Your task to perform on an android device: Open internet settings Image 0: 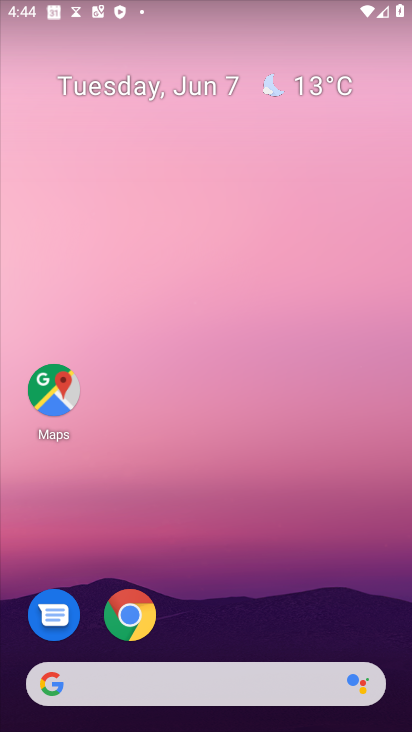
Step 0: drag from (235, 592) to (191, 250)
Your task to perform on an android device: Open internet settings Image 1: 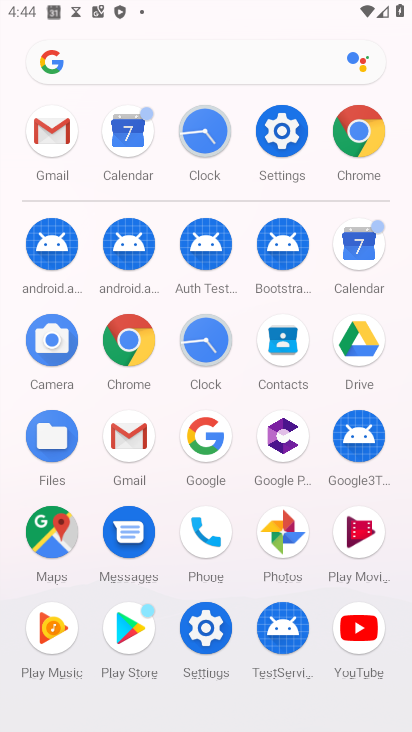
Step 1: click (276, 130)
Your task to perform on an android device: Open internet settings Image 2: 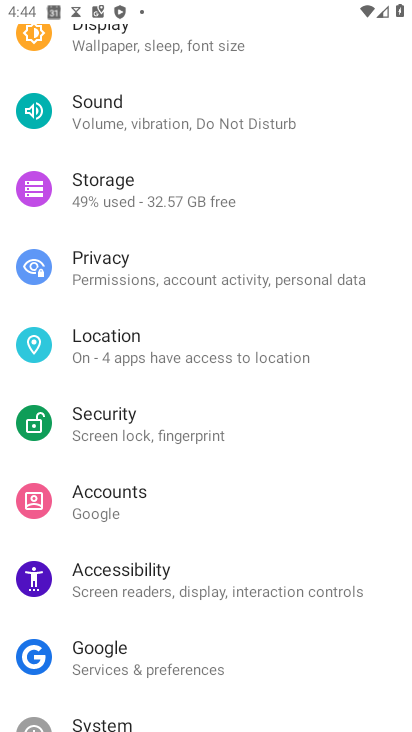
Step 2: drag from (147, 147) to (208, 615)
Your task to perform on an android device: Open internet settings Image 3: 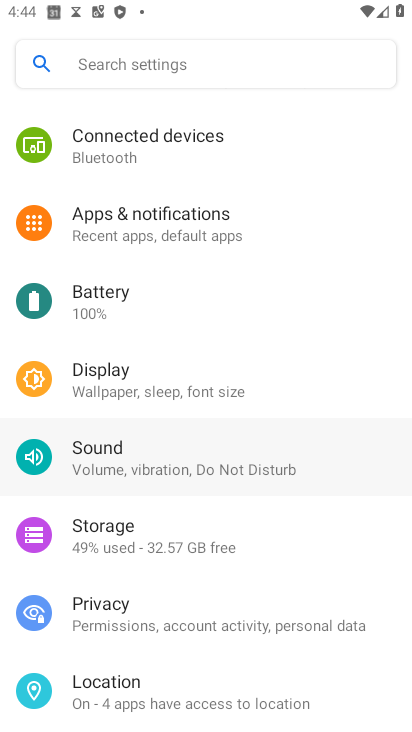
Step 3: drag from (85, 274) to (163, 622)
Your task to perform on an android device: Open internet settings Image 4: 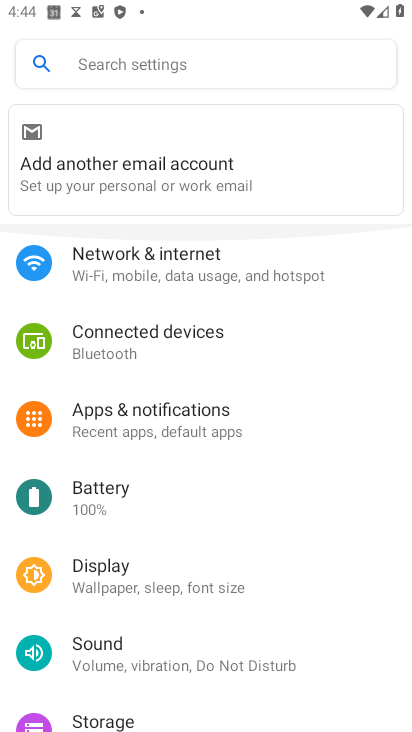
Step 4: click (218, 671)
Your task to perform on an android device: Open internet settings Image 5: 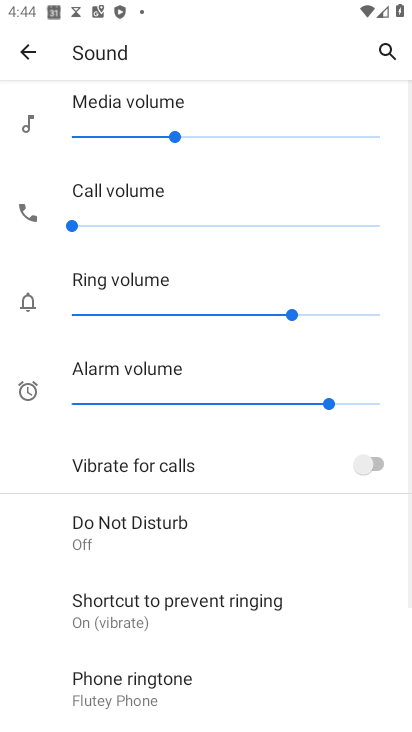
Step 5: click (23, 40)
Your task to perform on an android device: Open internet settings Image 6: 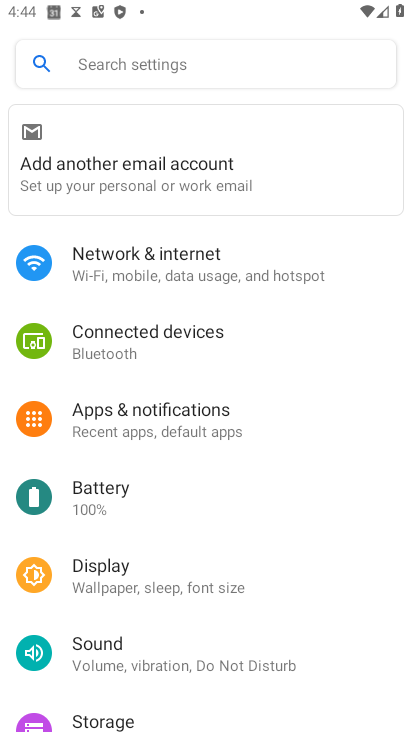
Step 6: drag from (145, 567) to (148, 259)
Your task to perform on an android device: Open internet settings Image 7: 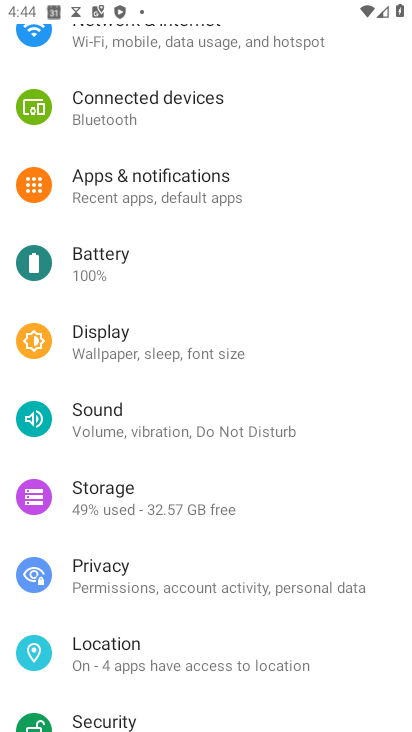
Step 7: drag from (148, 499) to (125, 271)
Your task to perform on an android device: Open internet settings Image 8: 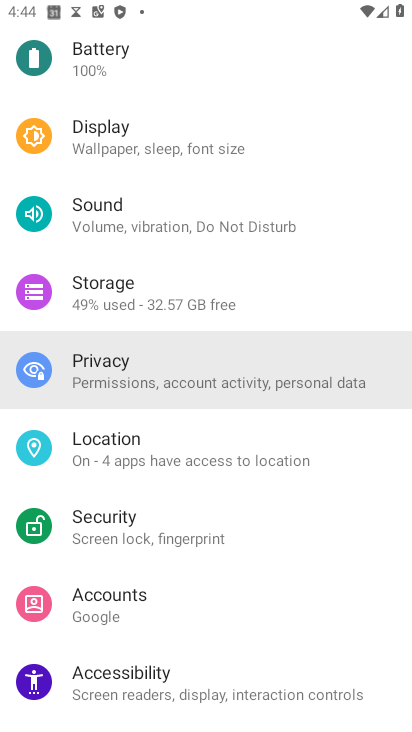
Step 8: drag from (156, 449) to (133, 244)
Your task to perform on an android device: Open internet settings Image 9: 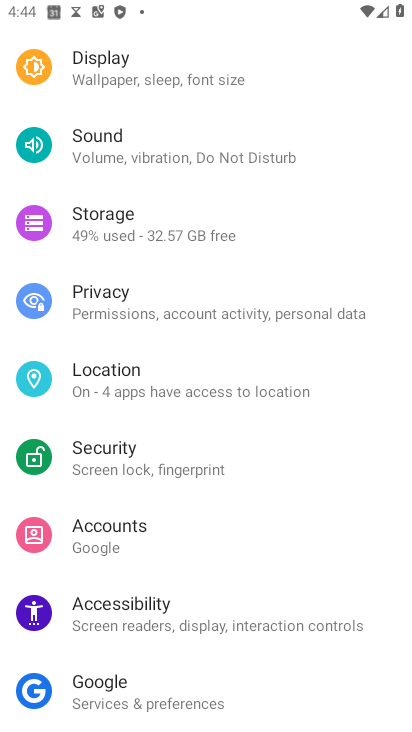
Step 9: drag from (105, 240) to (172, 626)
Your task to perform on an android device: Open internet settings Image 10: 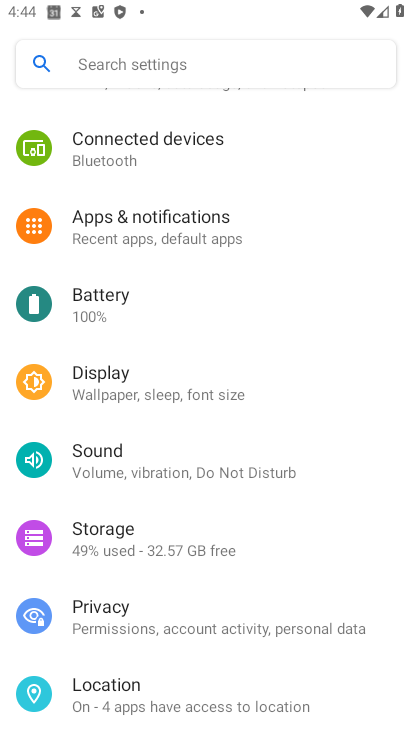
Step 10: click (240, 624)
Your task to perform on an android device: Open internet settings Image 11: 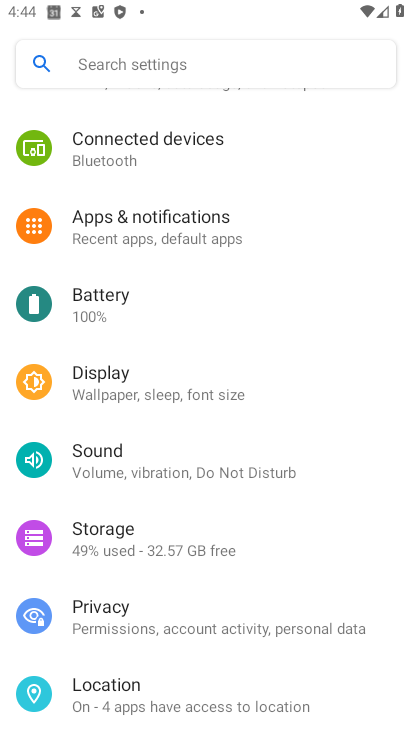
Step 11: click (196, 655)
Your task to perform on an android device: Open internet settings Image 12: 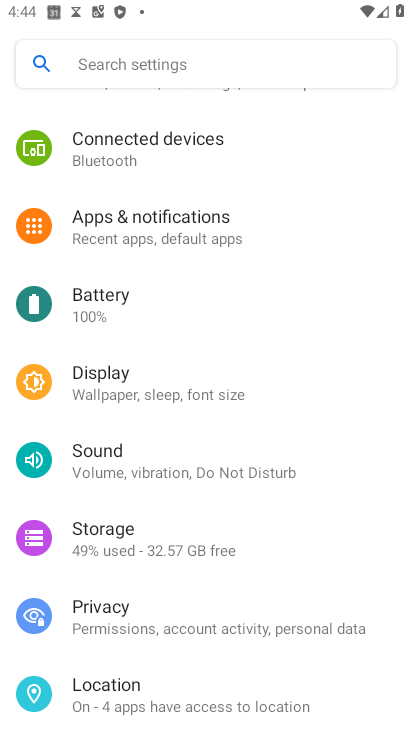
Step 12: drag from (102, 377) to (146, 582)
Your task to perform on an android device: Open internet settings Image 13: 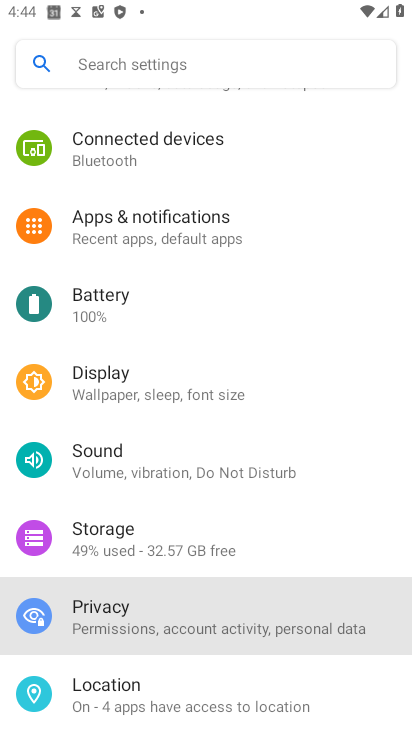
Step 13: drag from (144, 307) to (239, 669)
Your task to perform on an android device: Open internet settings Image 14: 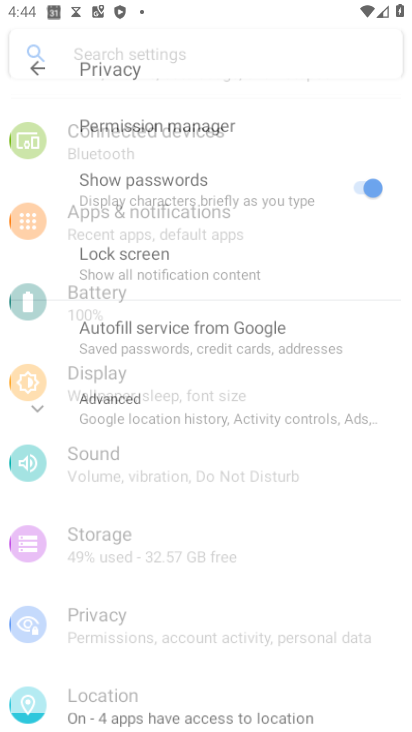
Step 14: drag from (251, 226) to (290, 504)
Your task to perform on an android device: Open internet settings Image 15: 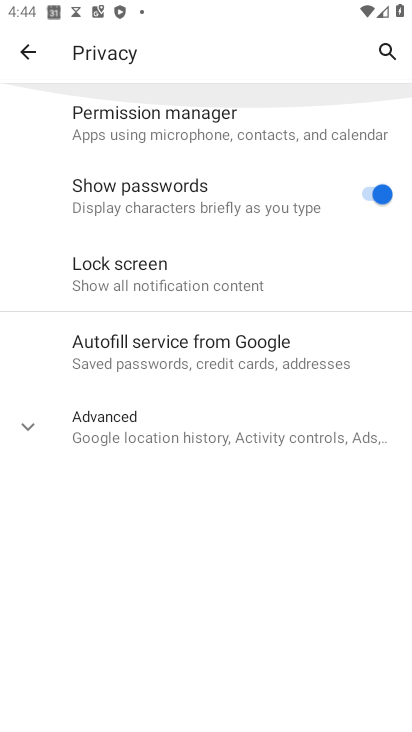
Step 15: drag from (240, 231) to (316, 563)
Your task to perform on an android device: Open internet settings Image 16: 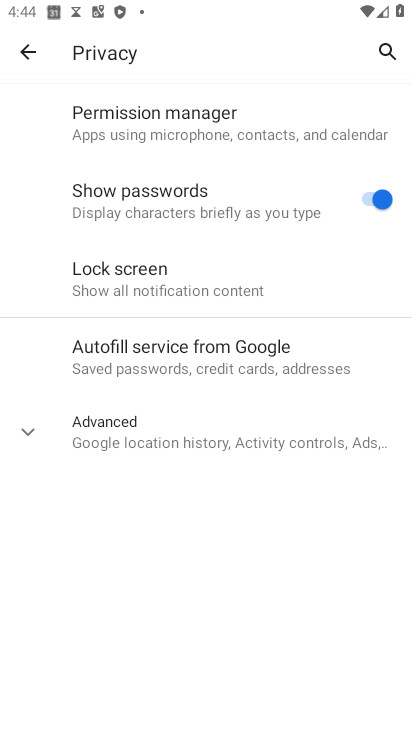
Step 16: click (31, 51)
Your task to perform on an android device: Open internet settings Image 17: 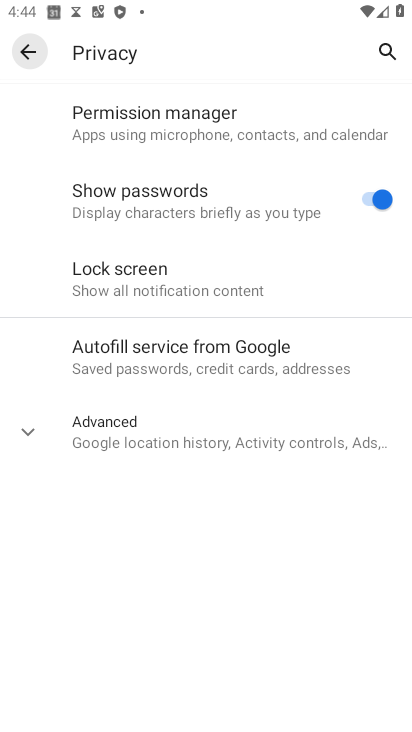
Step 17: click (31, 51)
Your task to perform on an android device: Open internet settings Image 18: 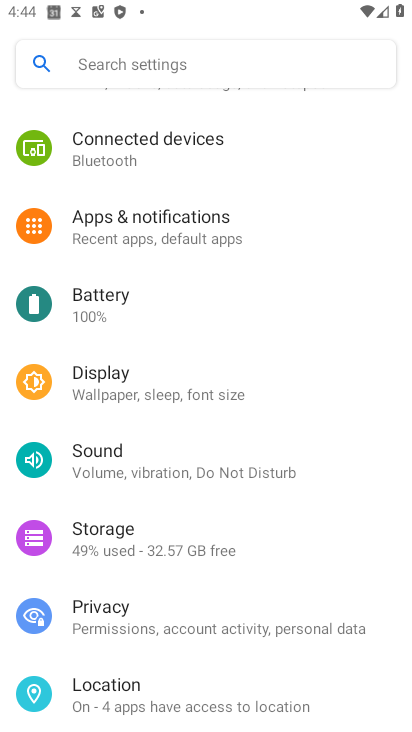
Step 18: drag from (187, 216) to (208, 546)
Your task to perform on an android device: Open internet settings Image 19: 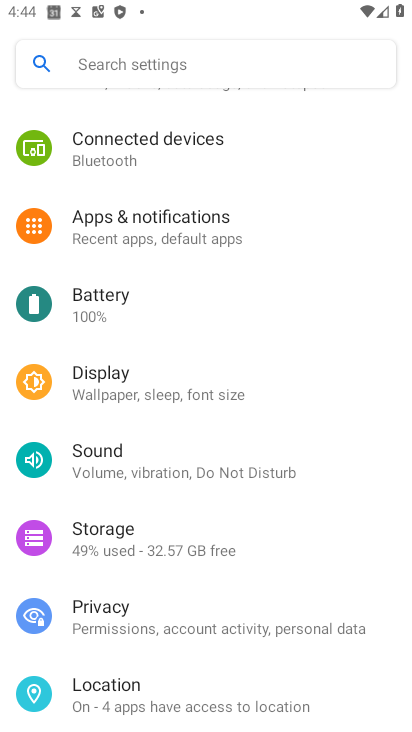
Step 19: drag from (188, 159) to (250, 559)
Your task to perform on an android device: Open internet settings Image 20: 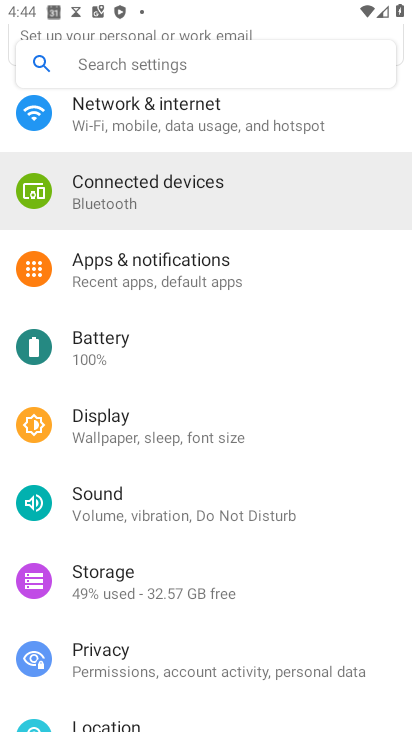
Step 20: drag from (172, 255) to (264, 539)
Your task to perform on an android device: Open internet settings Image 21: 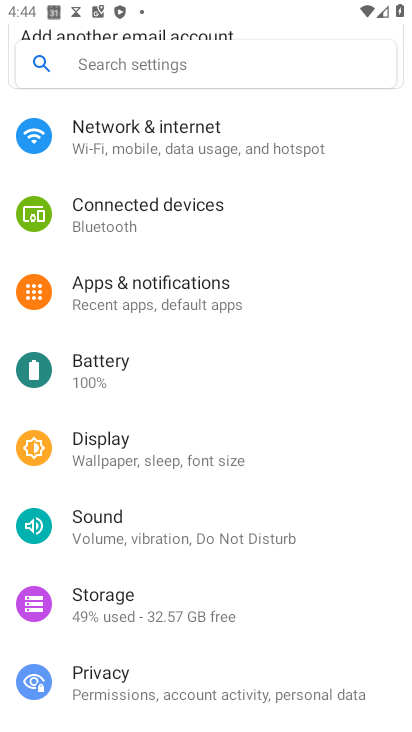
Step 21: click (153, 153)
Your task to perform on an android device: Open internet settings Image 22: 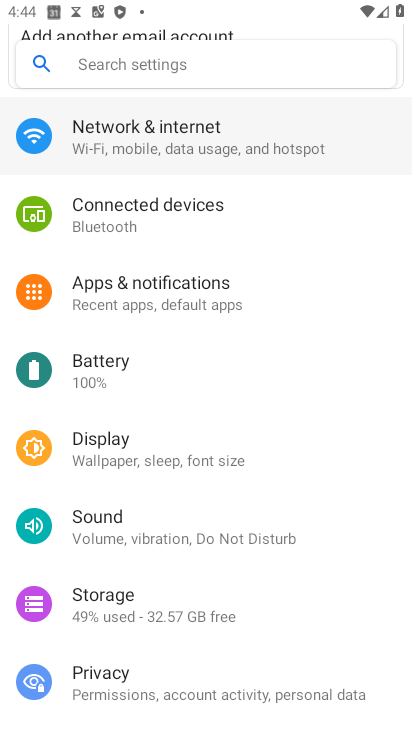
Step 22: click (152, 145)
Your task to perform on an android device: Open internet settings Image 23: 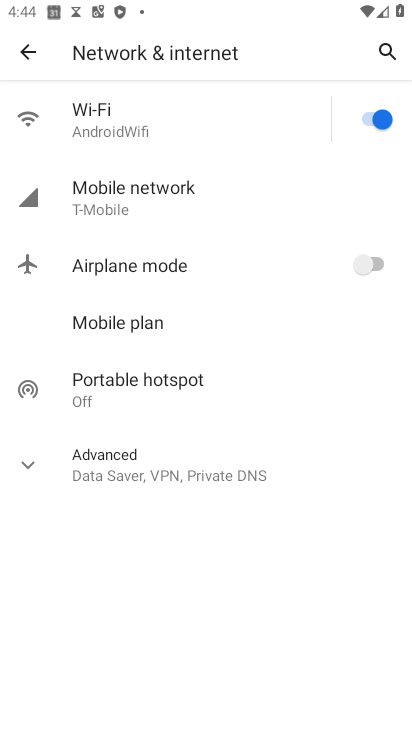
Step 23: task complete